Your task to perform on an android device: Open maps Image 0: 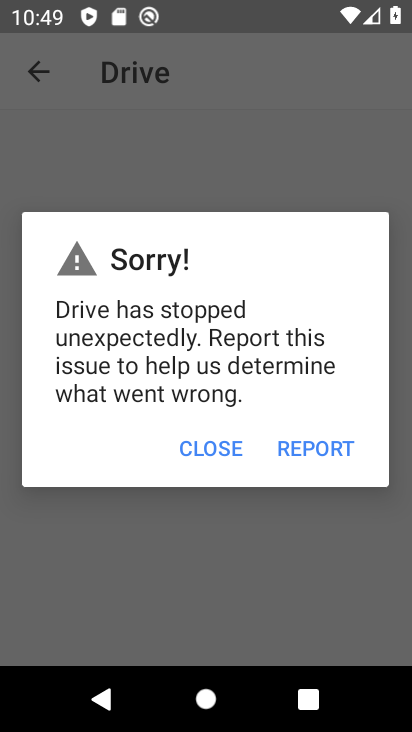
Step 0: press home button
Your task to perform on an android device: Open maps Image 1: 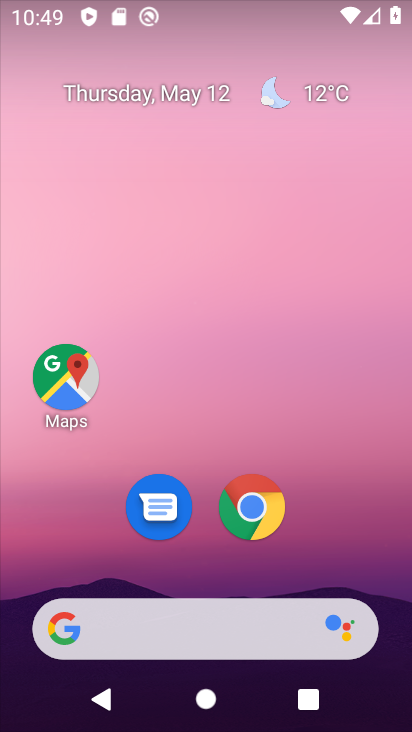
Step 1: click (70, 394)
Your task to perform on an android device: Open maps Image 2: 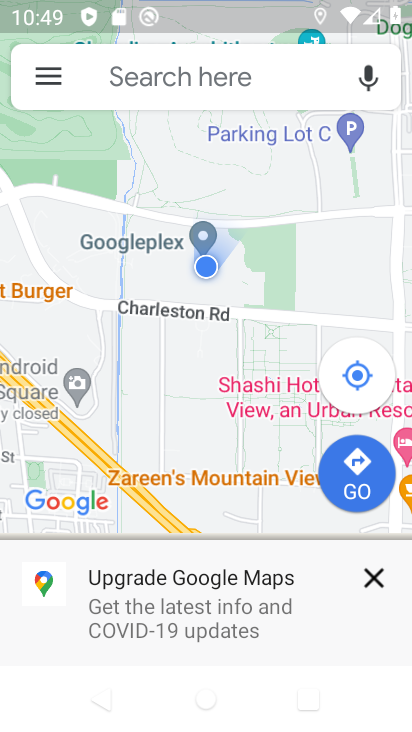
Step 2: task complete